Your task to perform on an android device: toggle sleep mode Image 0: 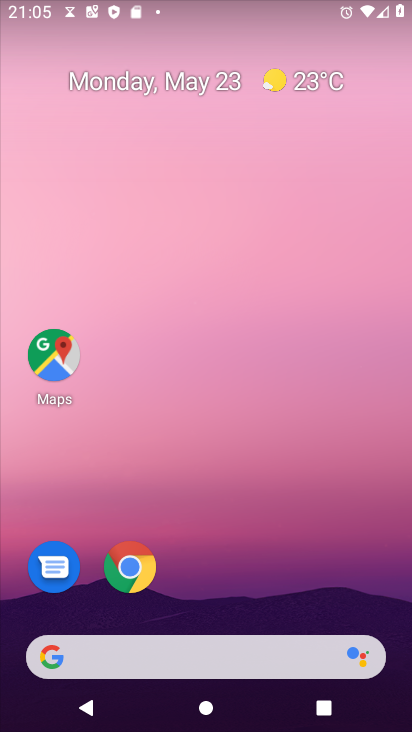
Step 0: drag from (216, 577) to (231, 356)
Your task to perform on an android device: toggle sleep mode Image 1: 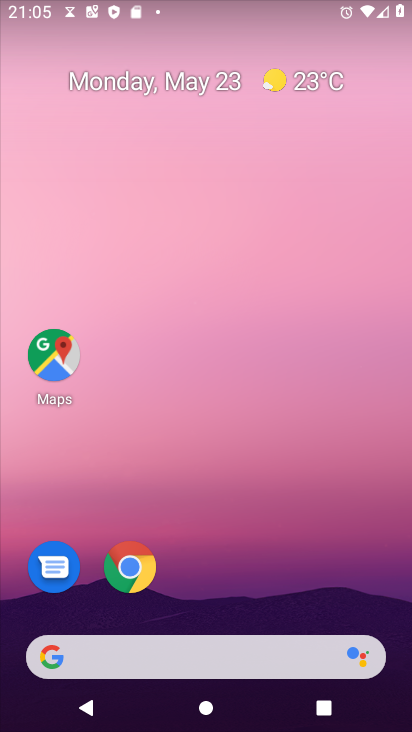
Step 1: drag from (262, 511) to (267, 295)
Your task to perform on an android device: toggle sleep mode Image 2: 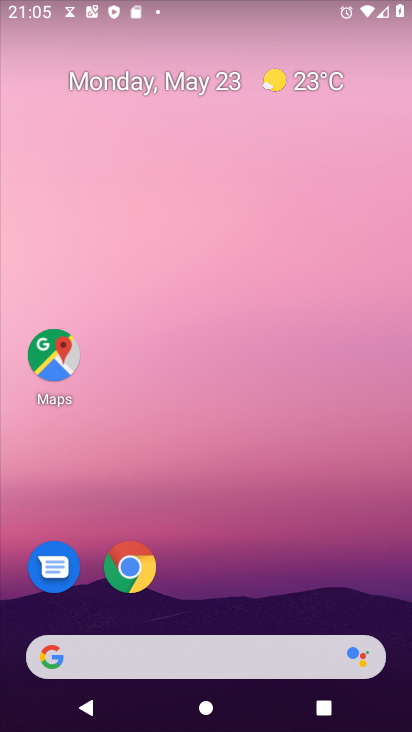
Step 2: drag from (196, 595) to (234, 262)
Your task to perform on an android device: toggle sleep mode Image 3: 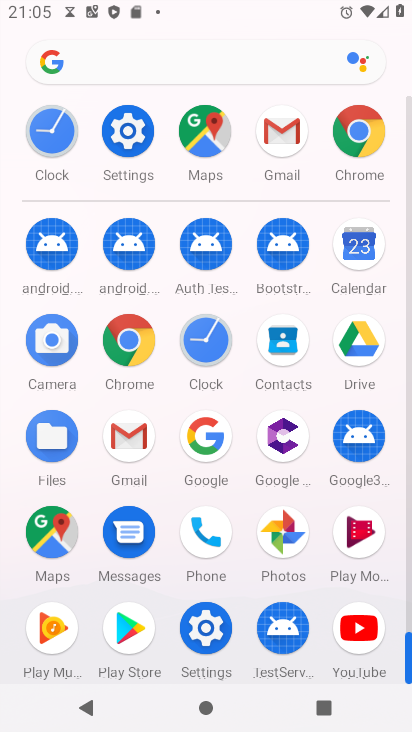
Step 3: click (119, 128)
Your task to perform on an android device: toggle sleep mode Image 4: 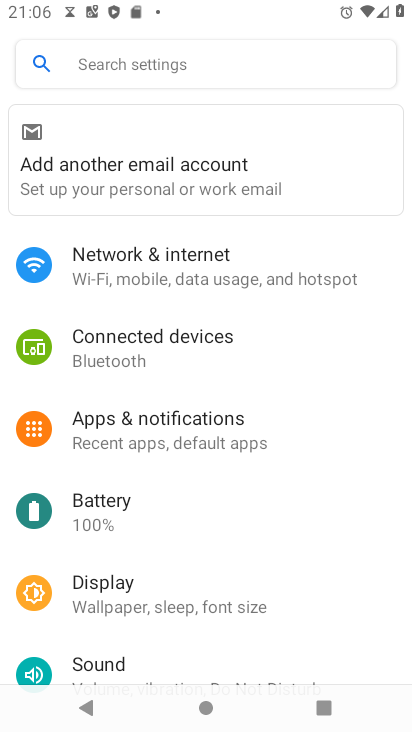
Step 4: task complete